Your task to perform on an android device: change timer sound Image 0: 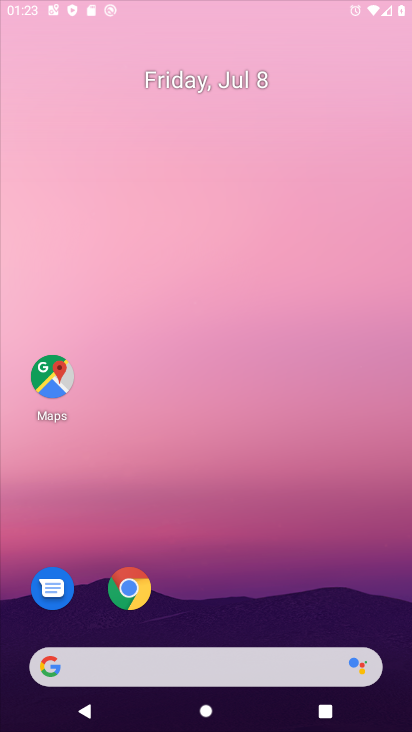
Step 0: drag from (232, 606) to (254, 157)
Your task to perform on an android device: change timer sound Image 1: 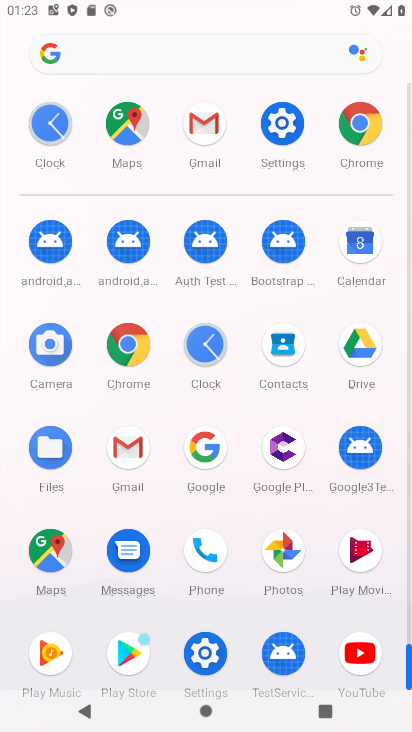
Step 1: click (207, 360)
Your task to perform on an android device: change timer sound Image 2: 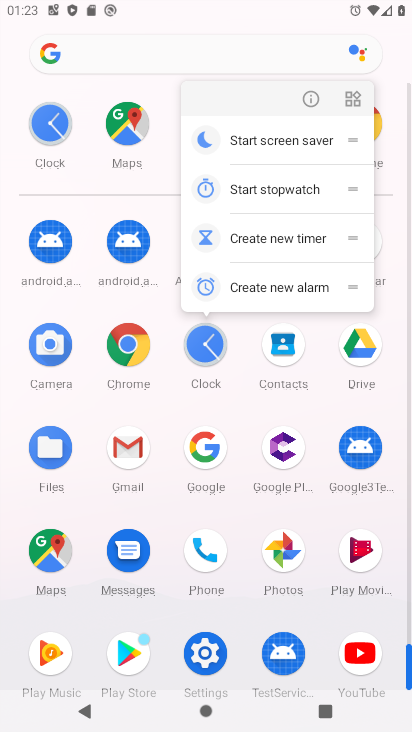
Step 2: click (300, 90)
Your task to perform on an android device: change timer sound Image 3: 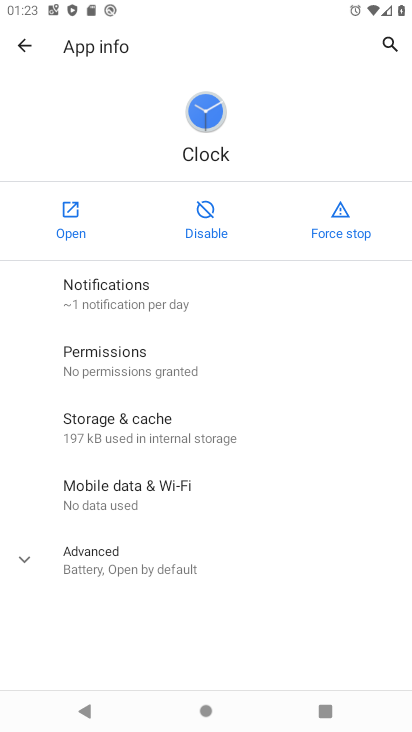
Step 3: click (76, 201)
Your task to perform on an android device: change timer sound Image 4: 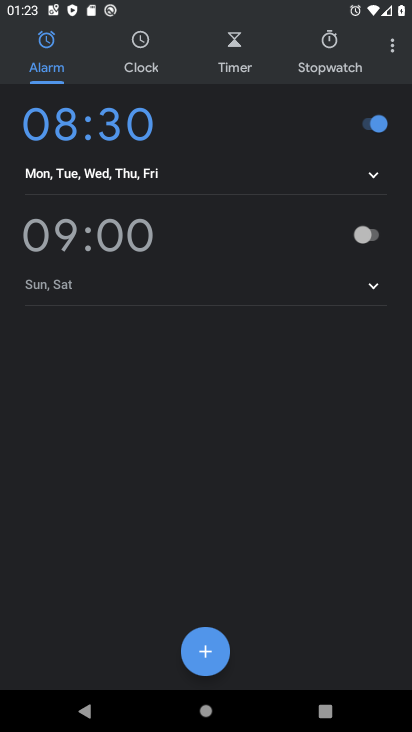
Step 4: click (394, 51)
Your task to perform on an android device: change timer sound Image 5: 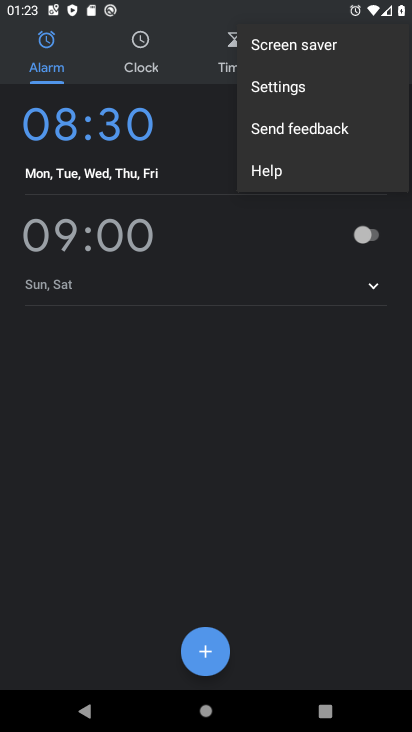
Step 5: click (283, 89)
Your task to perform on an android device: change timer sound Image 6: 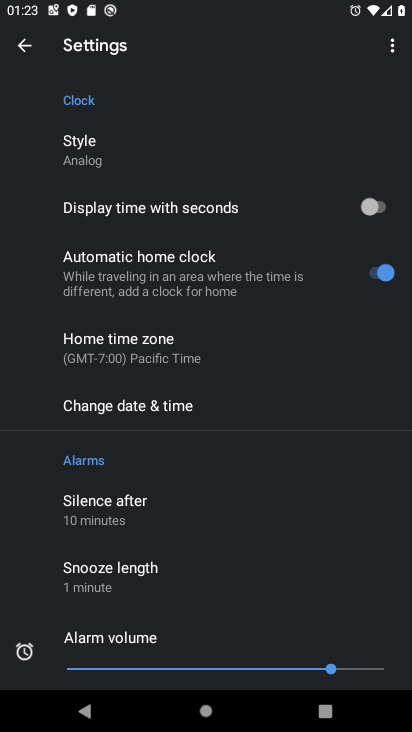
Step 6: drag from (191, 520) to (244, 89)
Your task to perform on an android device: change timer sound Image 7: 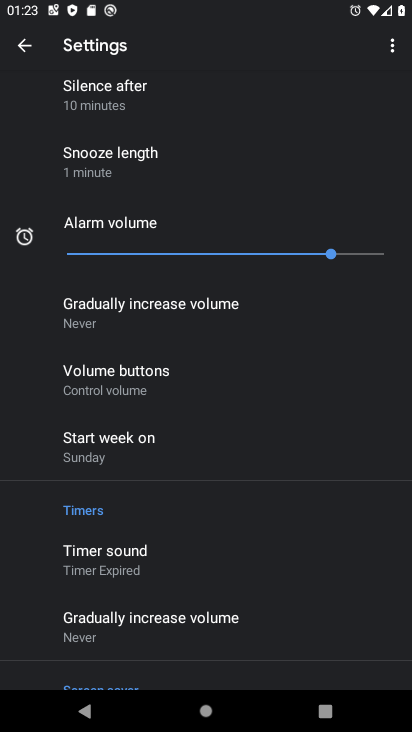
Step 7: click (79, 559)
Your task to perform on an android device: change timer sound Image 8: 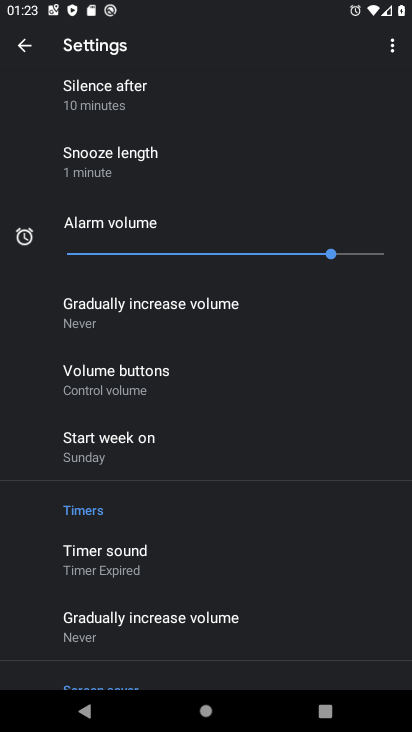
Step 8: click (79, 559)
Your task to perform on an android device: change timer sound Image 9: 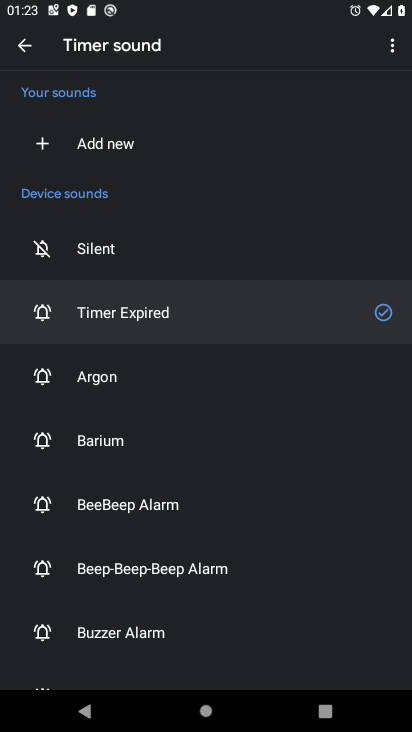
Step 9: click (82, 441)
Your task to perform on an android device: change timer sound Image 10: 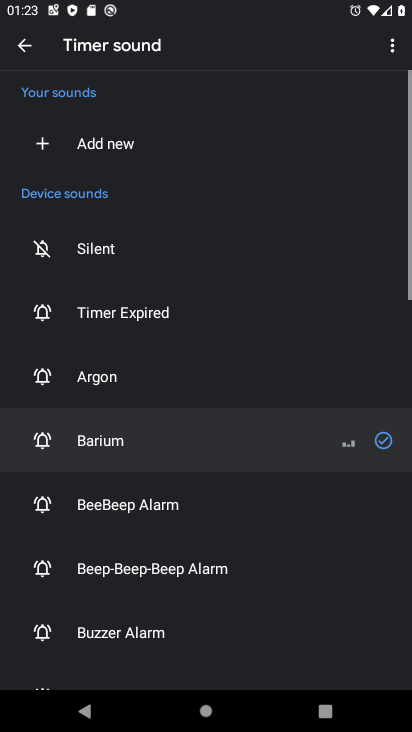
Step 10: task complete